Your task to perform on an android device: Open Maps and search for coffee Image 0: 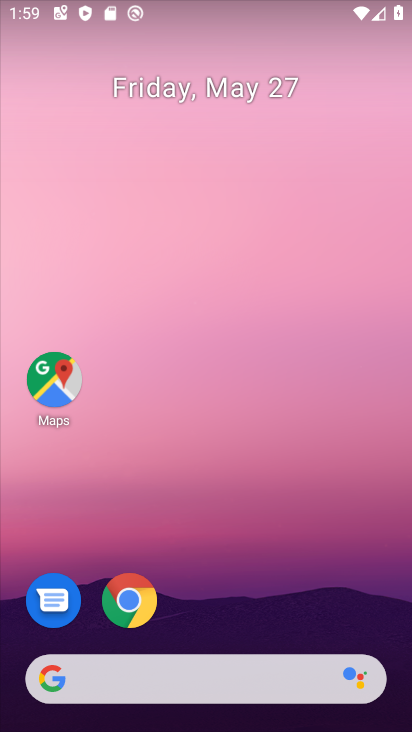
Step 0: drag from (220, 721) to (224, 85)
Your task to perform on an android device: Open Maps and search for coffee Image 1: 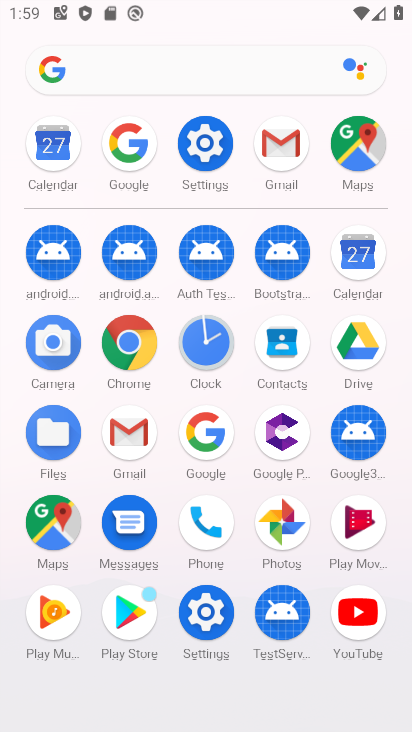
Step 1: click (52, 518)
Your task to perform on an android device: Open Maps and search for coffee Image 2: 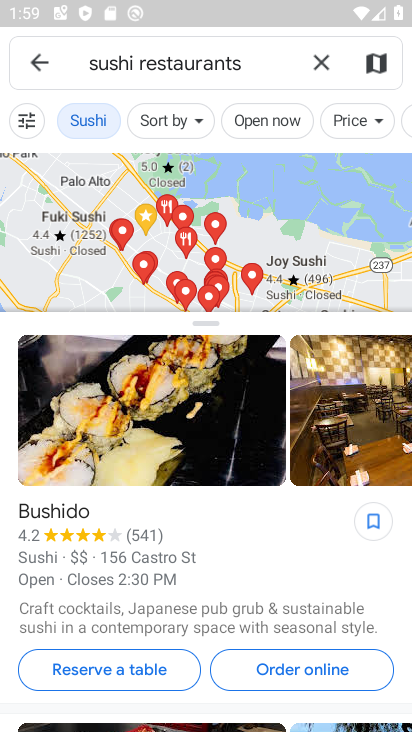
Step 2: click (320, 59)
Your task to perform on an android device: Open Maps and search for coffee Image 3: 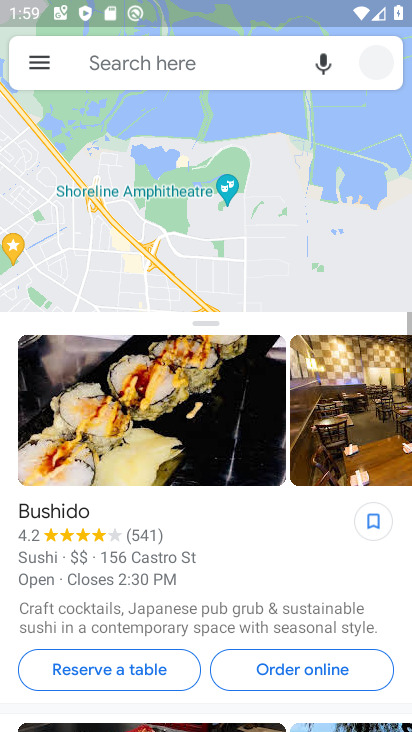
Step 3: click (181, 64)
Your task to perform on an android device: Open Maps and search for coffee Image 4: 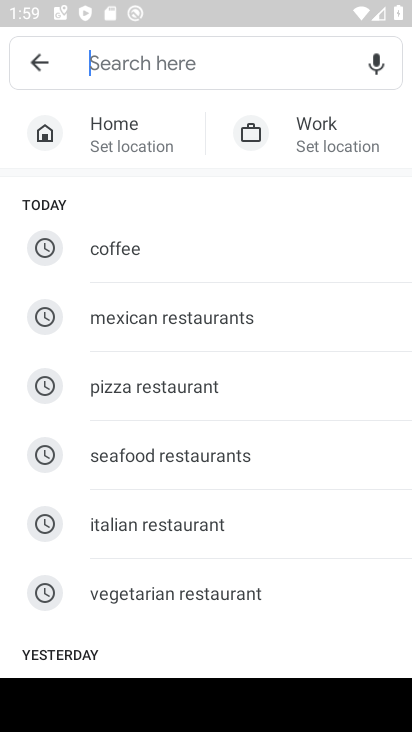
Step 4: type "coffee"
Your task to perform on an android device: Open Maps and search for coffee Image 5: 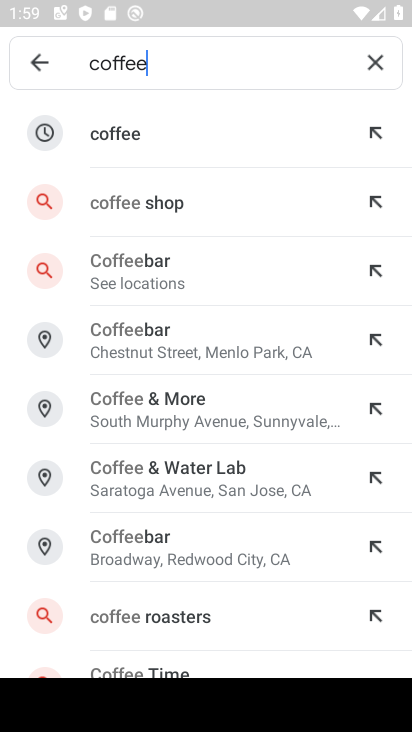
Step 5: click (105, 129)
Your task to perform on an android device: Open Maps and search for coffee Image 6: 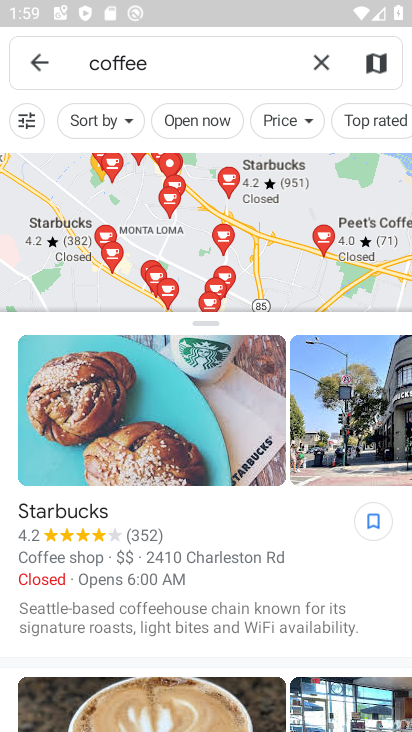
Step 6: task complete